Your task to perform on an android device: Open settings on Google Maps Image 0: 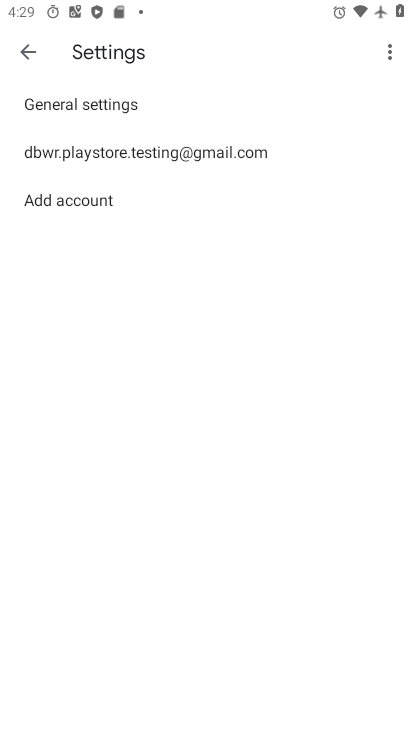
Step 0: press back button
Your task to perform on an android device: Open settings on Google Maps Image 1: 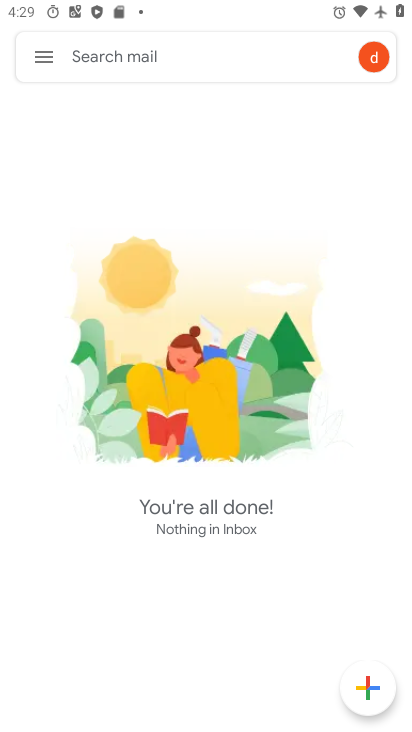
Step 1: press home button
Your task to perform on an android device: Open settings on Google Maps Image 2: 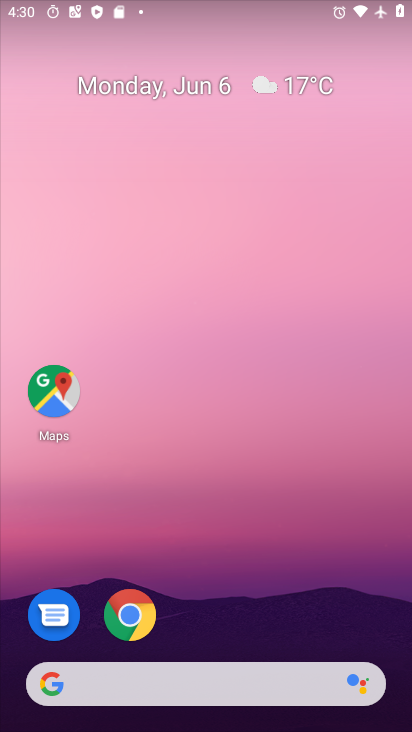
Step 2: drag from (229, 610) to (259, 53)
Your task to perform on an android device: Open settings on Google Maps Image 3: 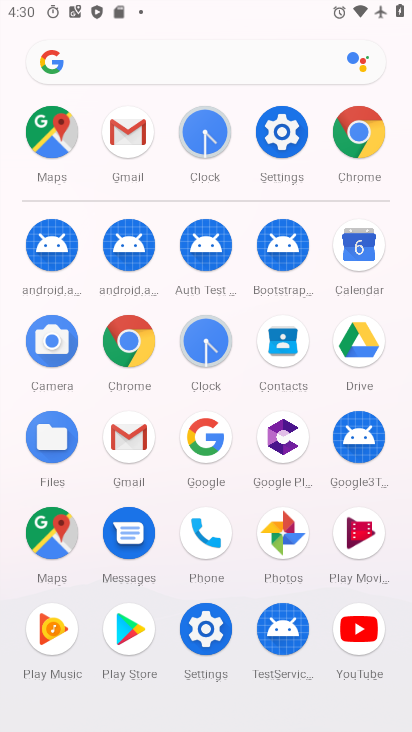
Step 3: click (49, 127)
Your task to perform on an android device: Open settings on Google Maps Image 4: 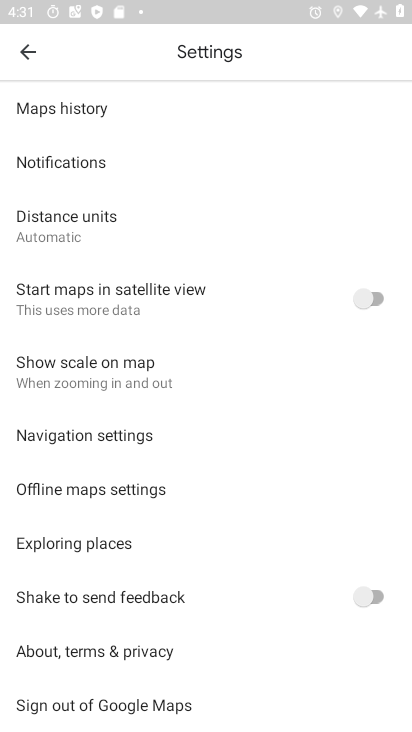
Step 4: task complete